Your task to perform on an android device: turn on sleep mode Image 0: 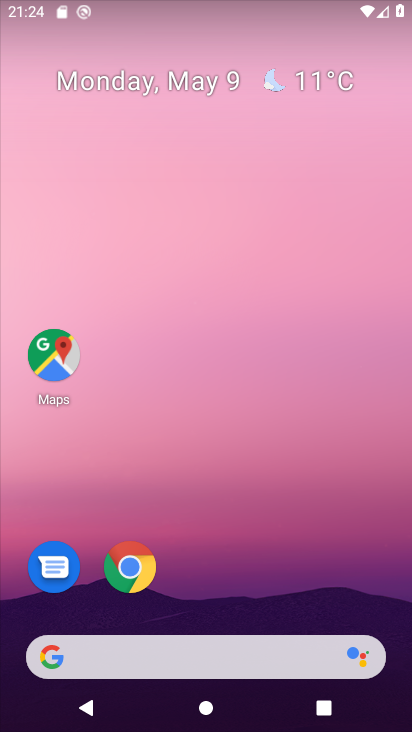
Step 0: drag from (244, 476) to (165, 93)
Your task to perform on an android device: turn on sleep mode Image 1: 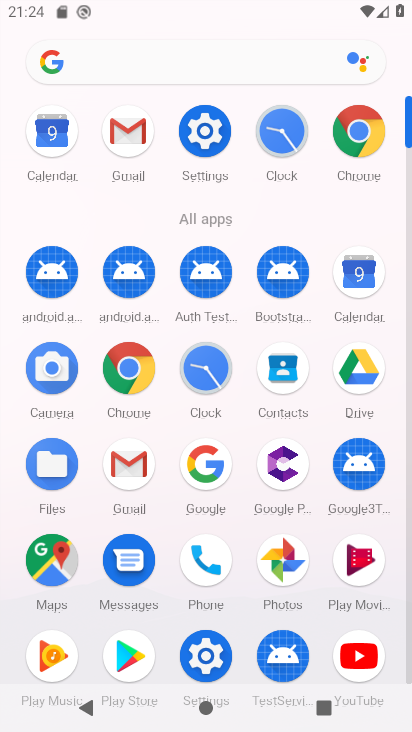
Step 1: click (205, 142)
Your task to perform on an android device: turn on sleep mode Image 2: 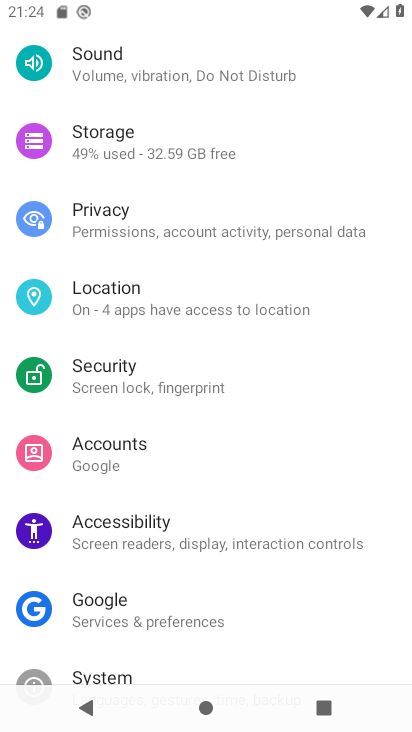
Step 2: drag from (186, 195) to (177, 668)
Your task to perform on an android device: turn on sleep mode Image 3: 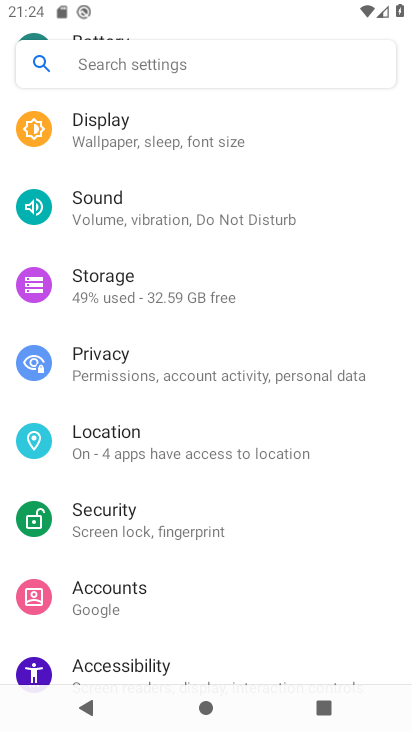
Step 3: click (177, 143)
Your task to perform on an android device: turn on sleep mode Image 4: 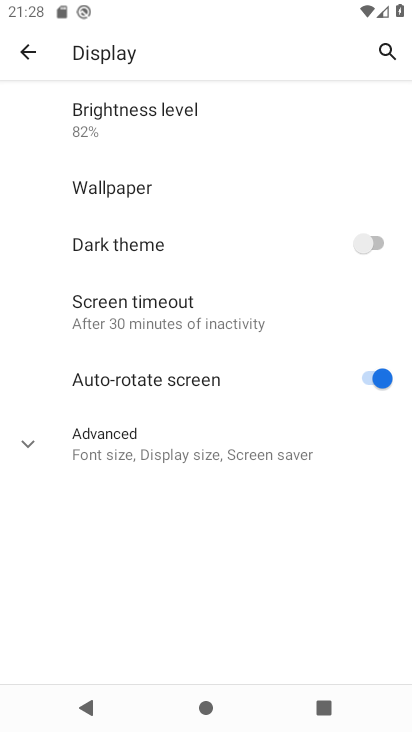
Step 4: task complete